Your task to perform on an android device: Open maps Image 0: 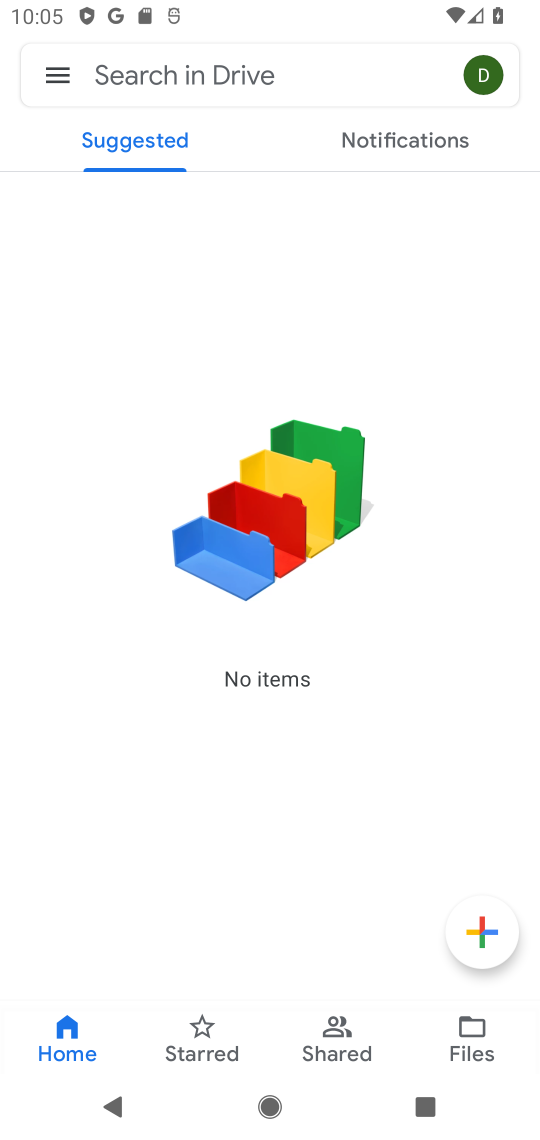
Step 0: press home button
Your task to perform on an android device: Open maps Image 1: 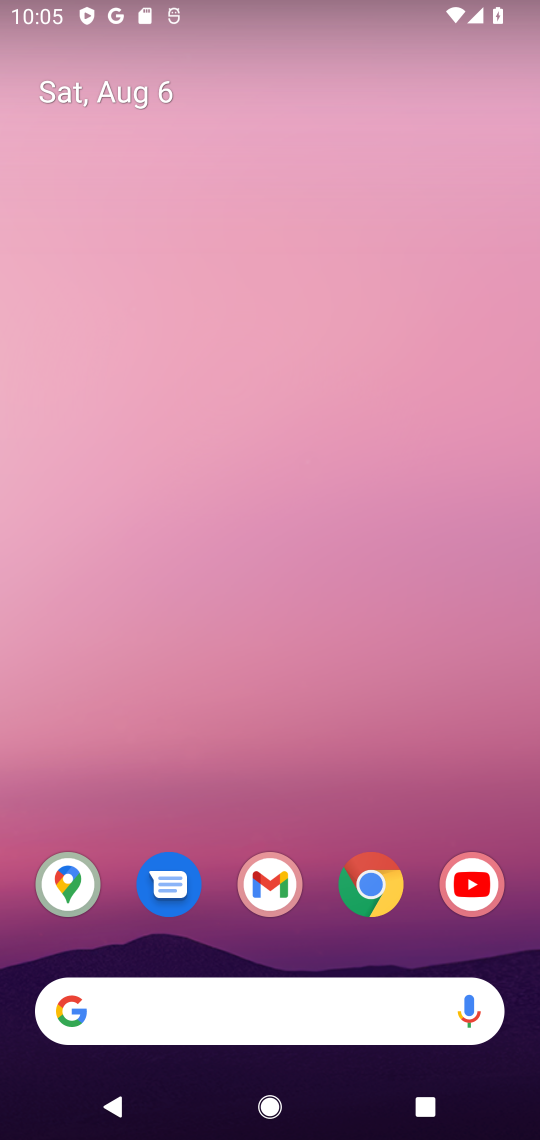
Step 1: click (71, 880)
Your task to perform on an android device: Open maps Image 2: 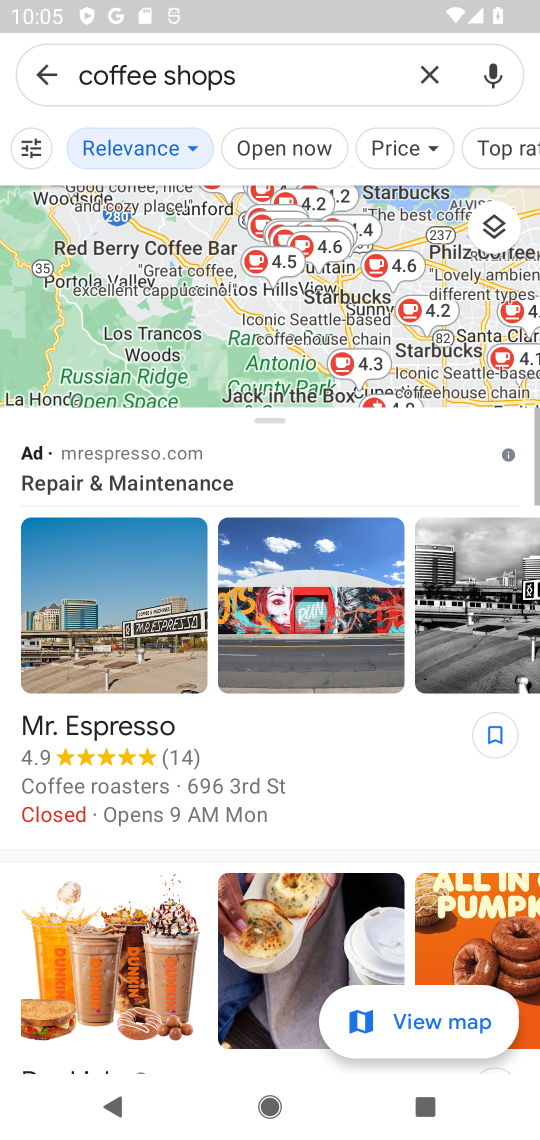
Step 2: click (431, 79)
Your task to perform on an android device: Open maps Image 3: 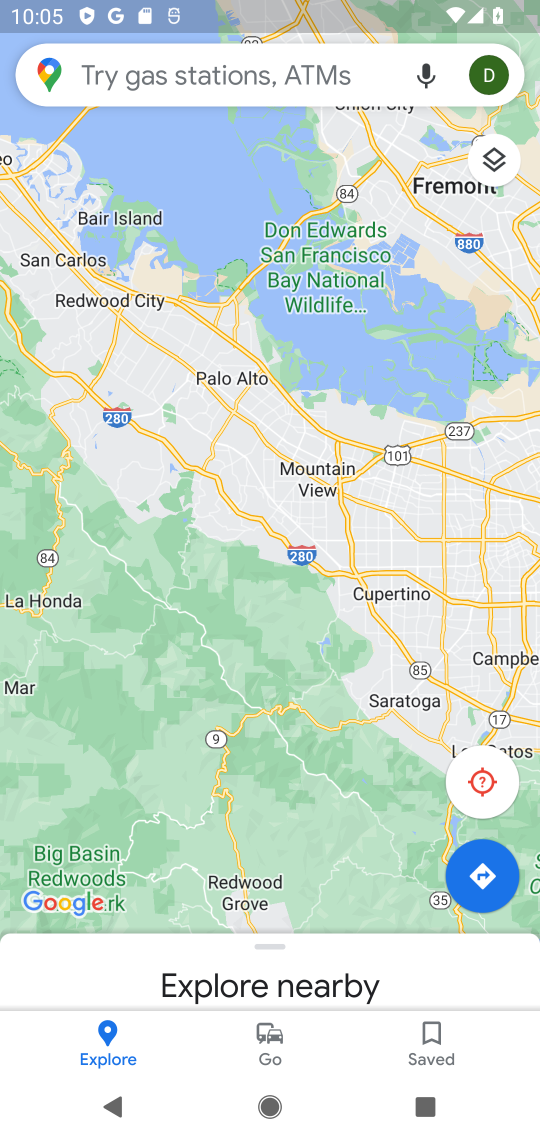
Step 3: task complete